Your task to perform on an android device: Open Youtube and go to "Your channel" Image 0: 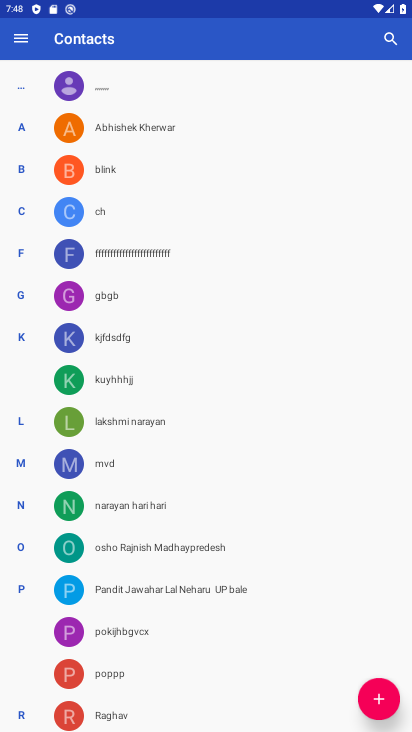
Step 0: press home button
Your task to perform on an android device: Open Youtube and go to "Your channel" Image 1: 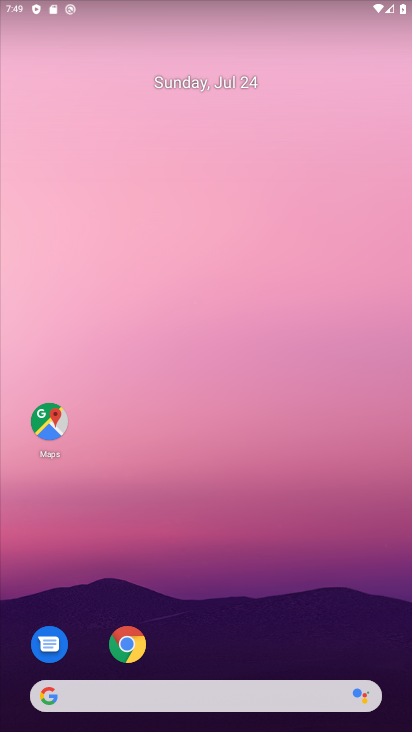
Step 1: click (219, 155)
Your task to perform on an android device: Open Youtube and go to "Your channel" Image 2: 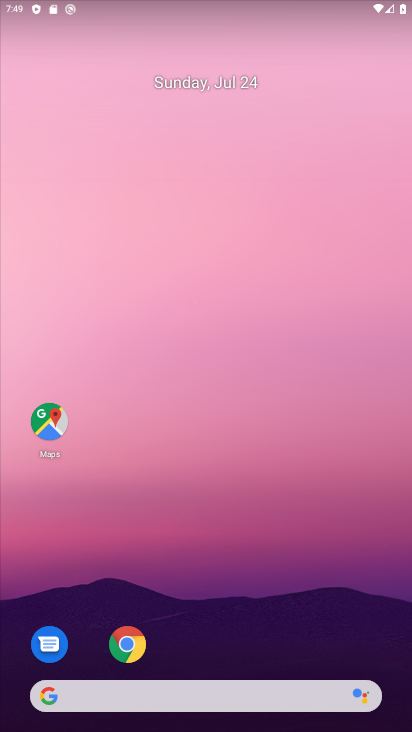
Step 2: drag from (214, 622) to (186, 0)
Your task to perform on an android device: Open Youtube and go to "Your channel" Image 3: 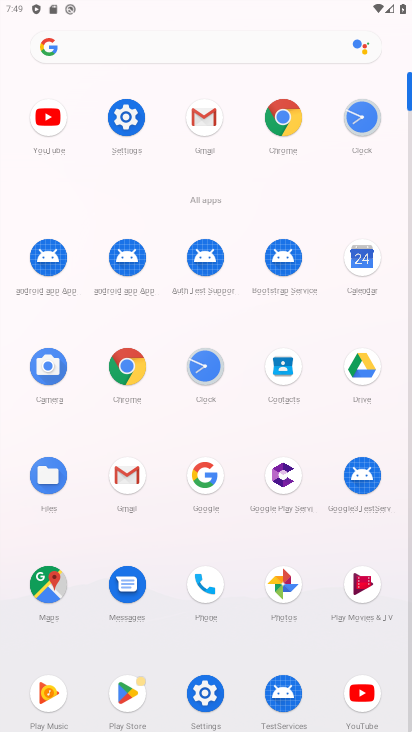
Step 3: click (372, 698)
Your task to perform on an android device: Open Youtube and go to "Your channel" Image 4: 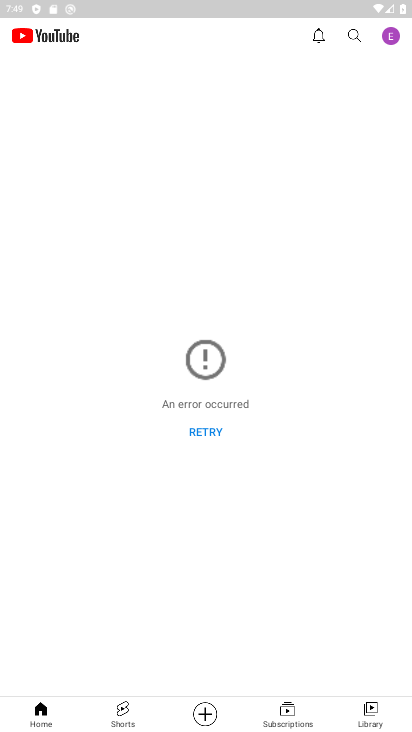
Step 4: click (389, 32)
Your task to perform on an android device: Open Youtube and go to "Your channel" Image 5: 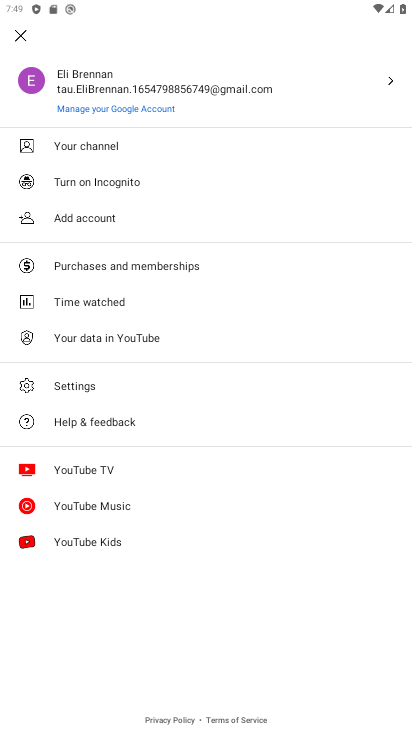
Step 5: click (85, 156)
Your task to perform on an android device: Open Youtube and go to "Your channel" Image 6: 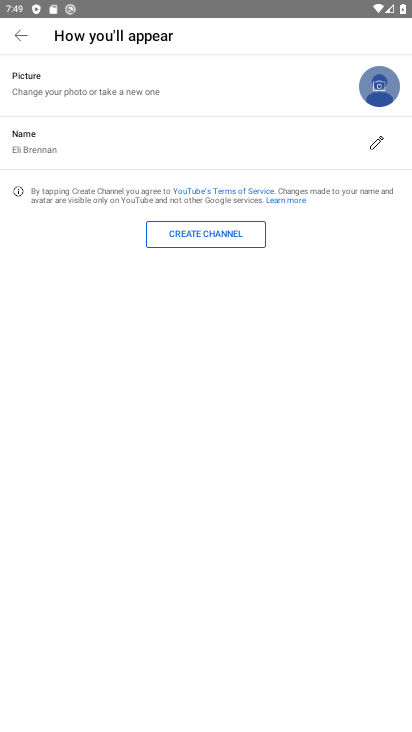
Step 6: task complete